Your task to perform on an android device: turn on priority inbox in the gmail app Image 0: 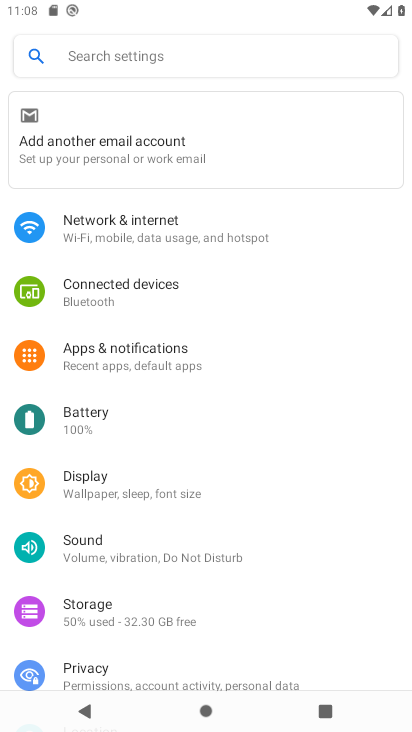
Step 0: press home button
Your task to perform on an android device: turn on priority inbox in the gmail app Image 1: 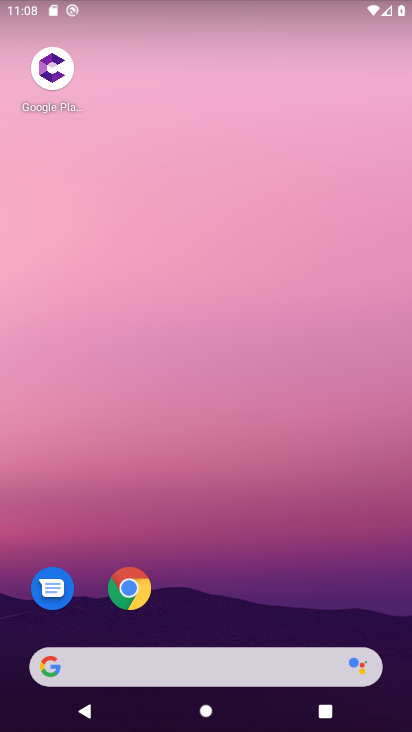
Step 1: drag from (253, 605) to (283, 0)
Your task to perform on an android device: turn on priority inbox in the gmail app Image 2: 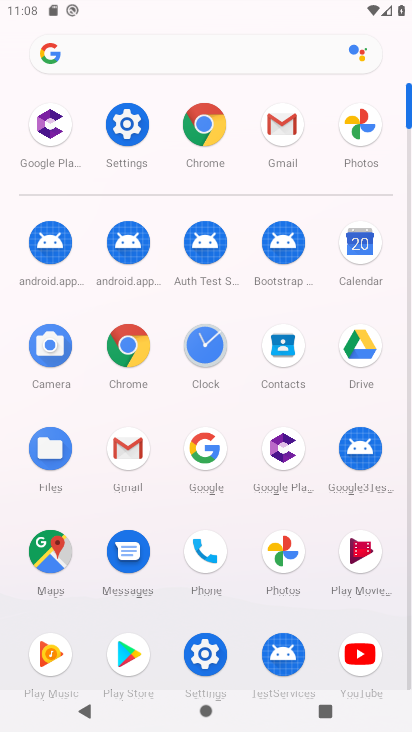
Step 2: click (123, 453)
Your task to perform on an android device: turn on priority inbox in the gmail app Image 3: 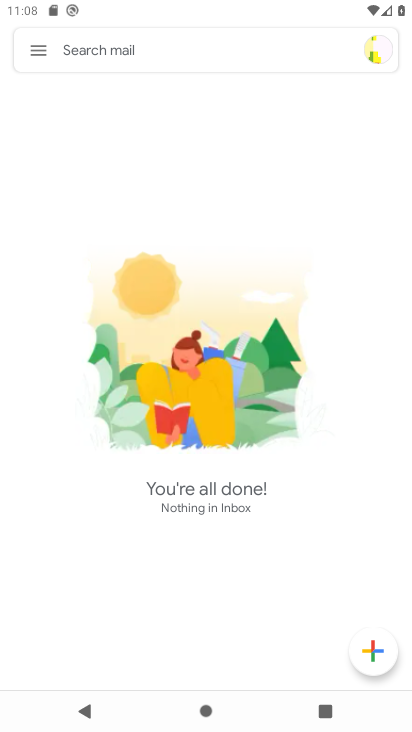
Step 3: click (37, 47)
Your task to perform on an android device: turn on priority inbox in the gmail app Image 4: 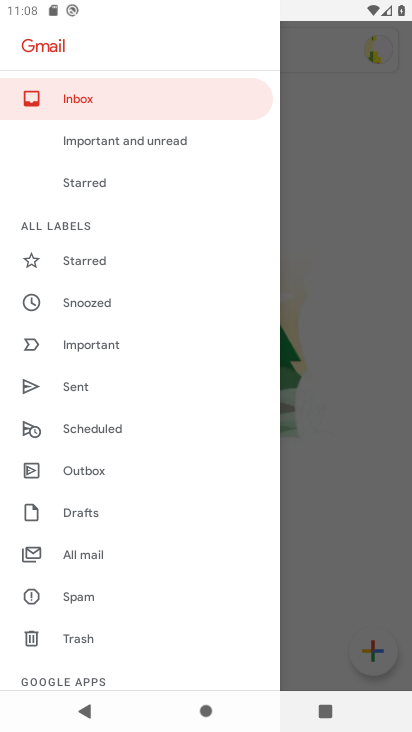
Step 4: drag from (133, 601) to (72, 129)
Your task to perform on an android device: turn on priority inbox in the gmail app Image 5: 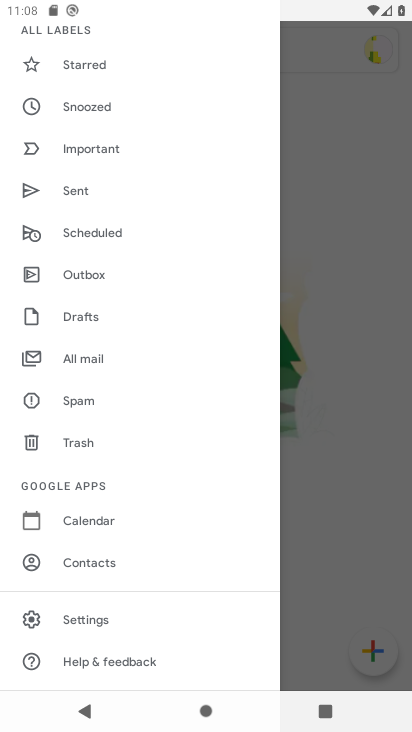
Step 5: drag from (169, 559) to (157, 135)
Your task to perform on an android device: turn on priority inbox in the gmail app Image 6: 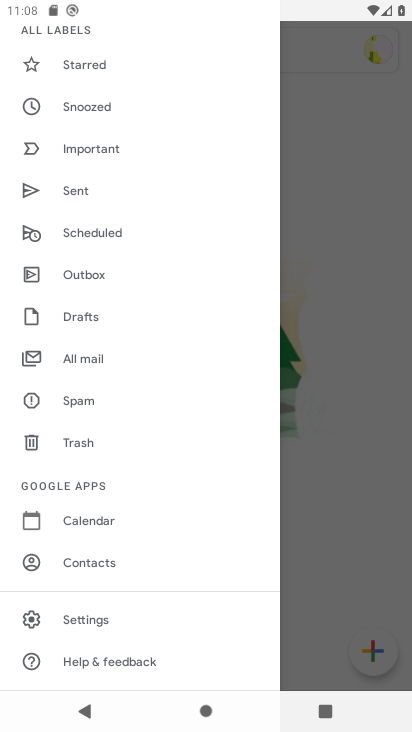
Step 6: click (86, 618)
Your task to perform on an android device: turn on priority inbox in the gmail app Image 7: 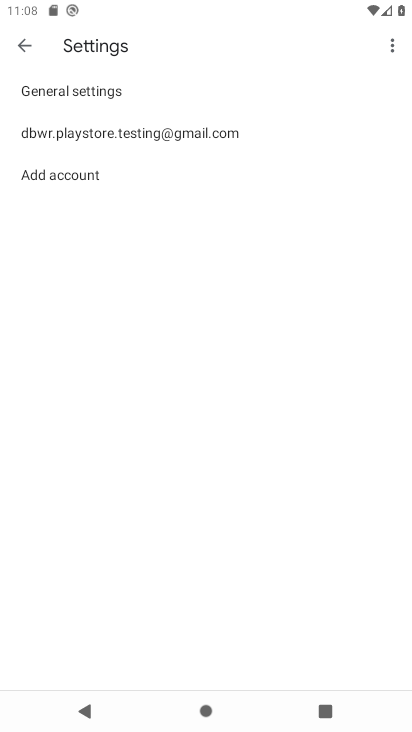
Step 7: click (100, 136)
Your task to perform on an android device: turn on priority inbox in the gmail app Image 8: 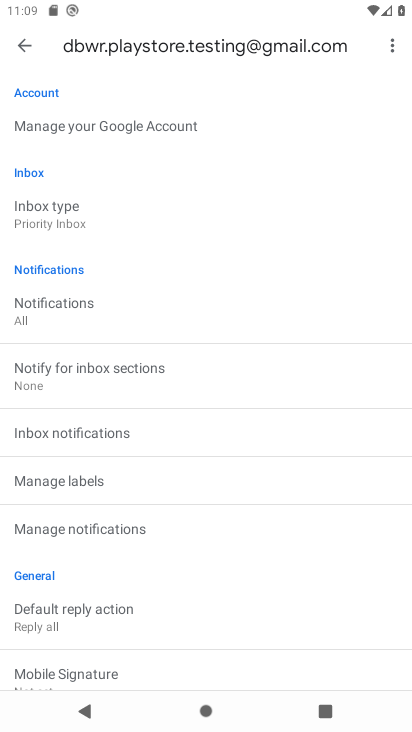
Step 8: click (48, 210)
Your task to perform on an android device: turn on priority inbox in the gmail app Image 9: 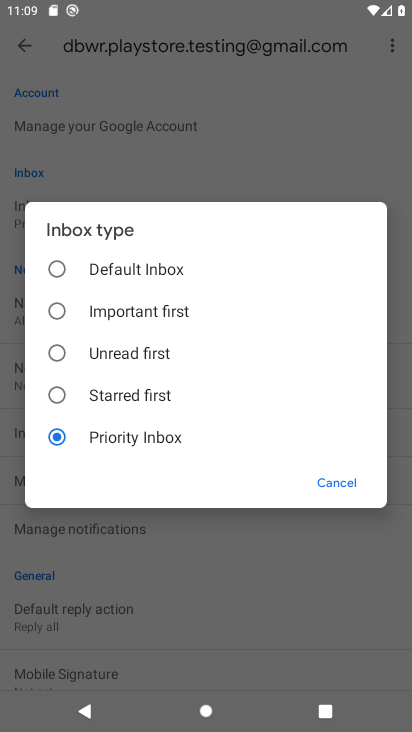
Step 9: task complete